Your task to perform on an android device: Go to Maps Image 0: 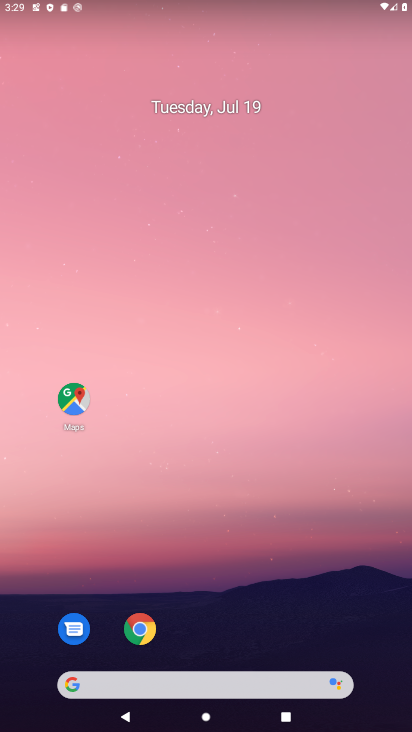
Step 0: click (71, 407)
Your task to perform on an android device: Go to Maps Image 1: 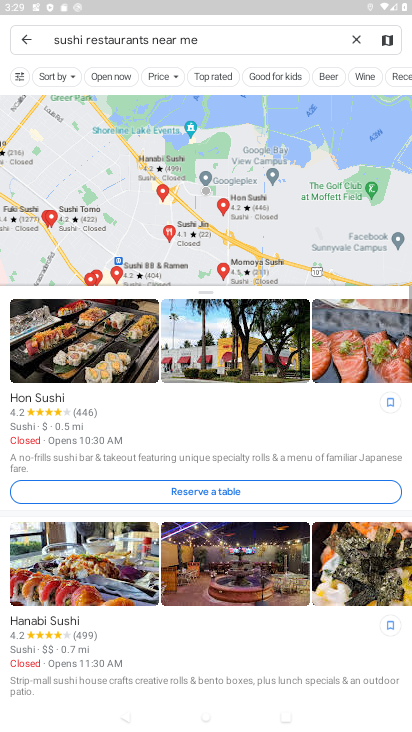
Step 1: click (22, 36)
Your task to perform on an android device: Go to Maps Image 2: 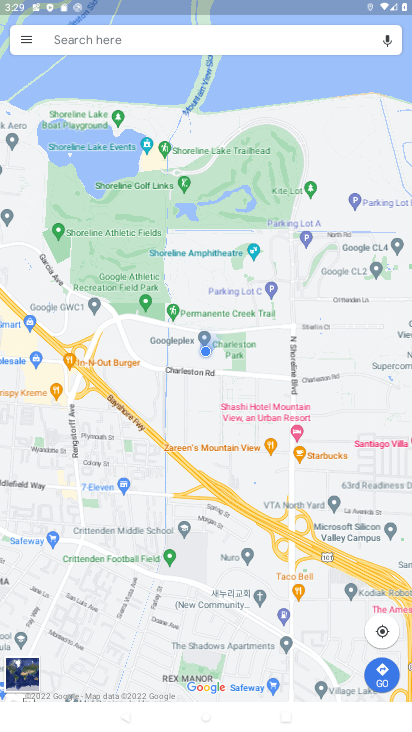
Step 2: task complete